Your task to perform on an android device: Search for "razer blackwidow" on target.com, select the first entry, and add it to the cart. Image 0: 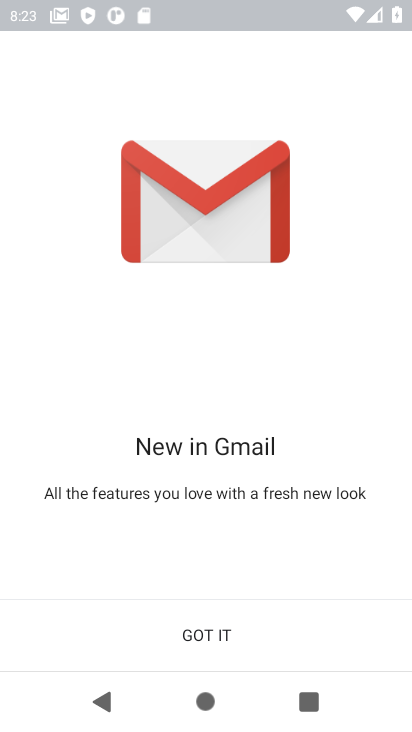
Step 0: press home button
Your task to perform on an android device: Search for "razer blackwidow" on target.com, select the first entry, and add it to the cart. Image 1: 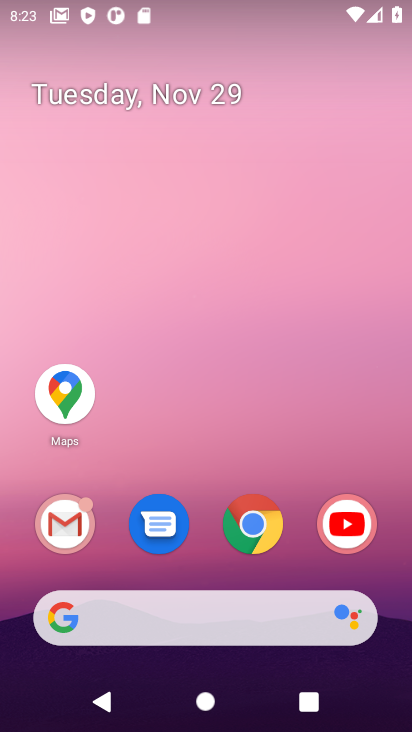
Step 1: click (249, 527)
Your task to perform on an android device: Search for "razer blackwidow" on target.com, select the first entry, and add it to the cart. Image 2: 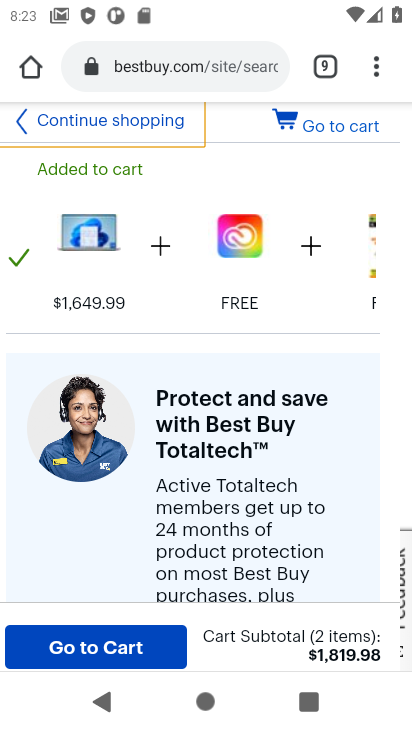
Step 2: click (182, 64)
Your task to perform on an android device: Search for "razer blackwidow" on target.com, select the first entry, and add it to the cart. Image 3: 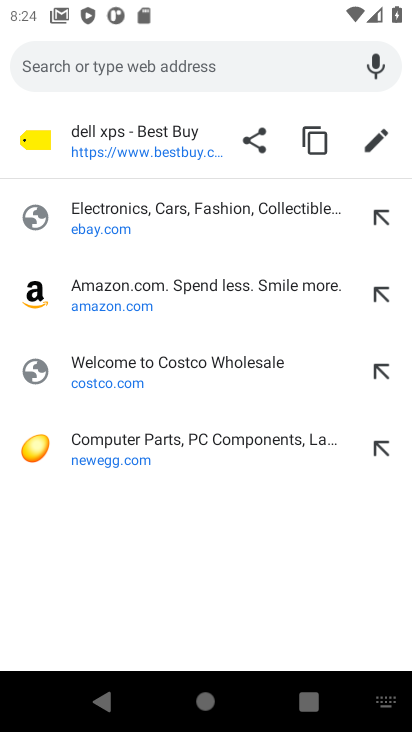
Step 3: type "target.com"
Your task to perform on an android device: Search for "razer blackwidow" on target.com, select the first entry, and add it to the cart. Image 4: 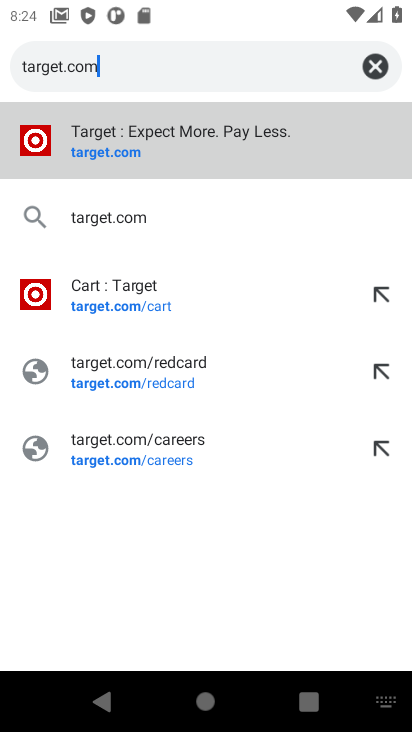
Step 4: click (127, 148)
Your task to perform on an android device: Search for "razer blackwidow" on target.com, select the first entry, and add it to the cart. Image 5: 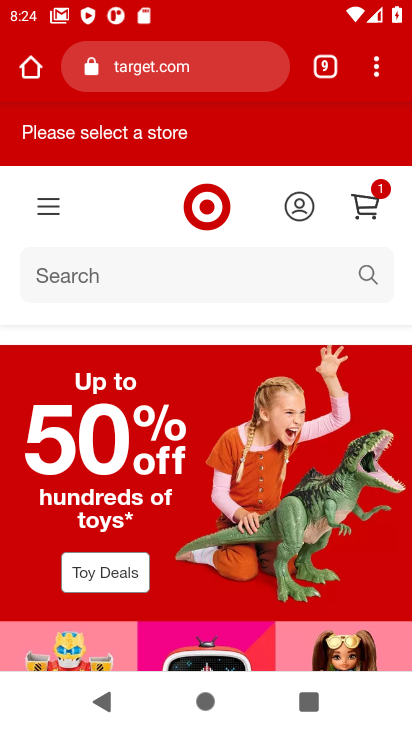
Step 5: click (51, 270)
Your task to perform on an android device: Search for "razer blackwidow" on target.com, select the first entry, and add it to the cart. Image 6: 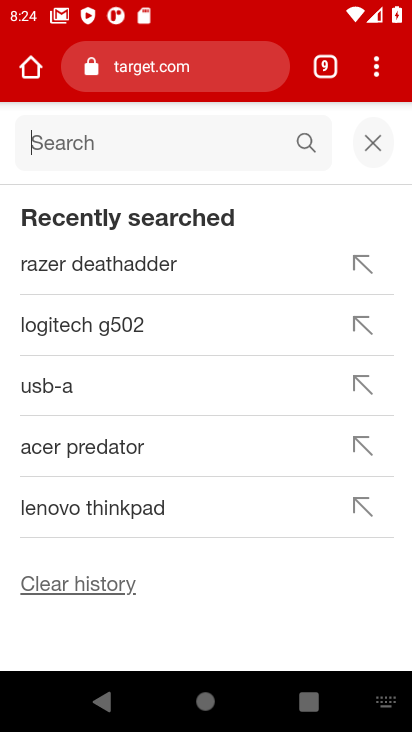
Step 6: type "razer blackwidow"
Your task to perform on an android device: Search for "razer blackwidow" on target.com, select the first entry, and add it to the cart. Image 7: 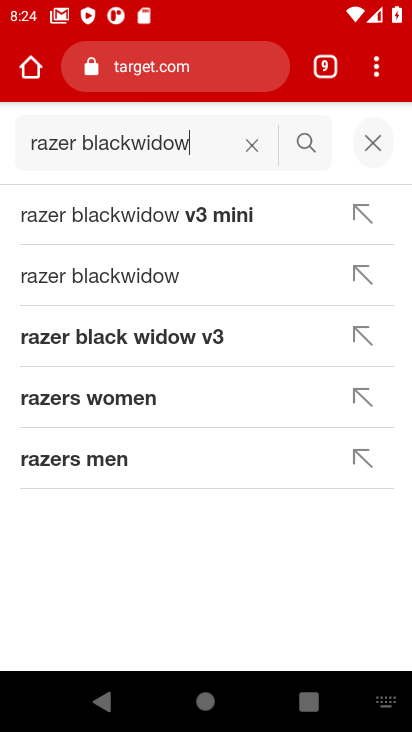
Step 7: click (101, 284)
Your task to perform on an android device: Search for "razer blackwidow" on target.com, select the first entry, and add it to the cart. Image 8: 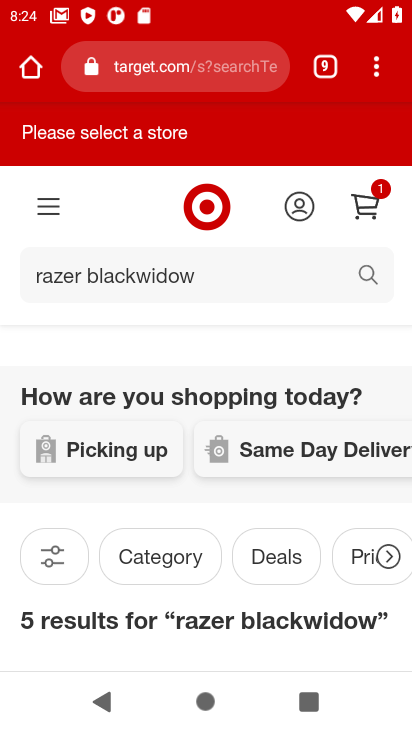
Step 8: drag from (153, 383) to (123, 122)
Your task to perform on an android device: Search for "razer blackwidow" on target.com, select the first entry, and add it to the cart. Image 9: 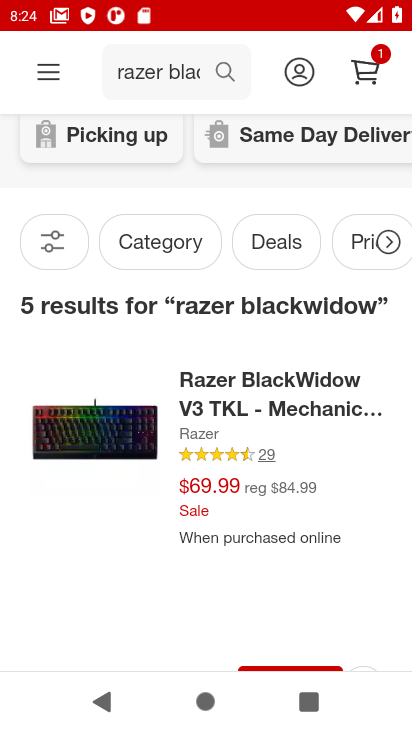
Step 9: drag from (151, 349) to (137, 218)
Your task to perform on an android device: Search for "razer blackwidow" on target.com, select the first entry, and add it to the cart. Image 10: 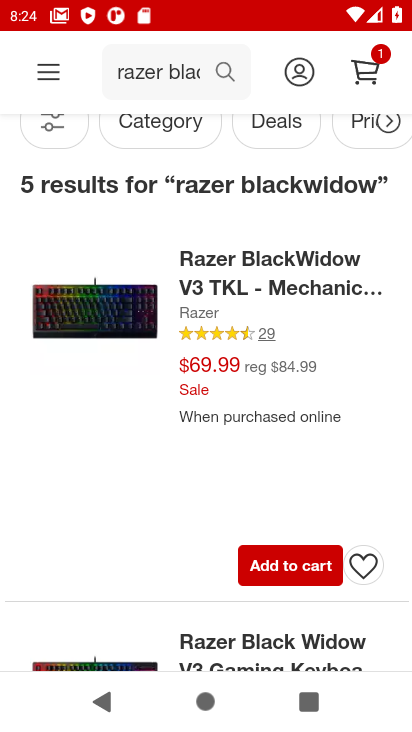
Step 10: click (282, 568)
Your task to perform on an android device: Search for "razer blackwidow" on target.com, select the first entry, and add it to the cart. Image 11: 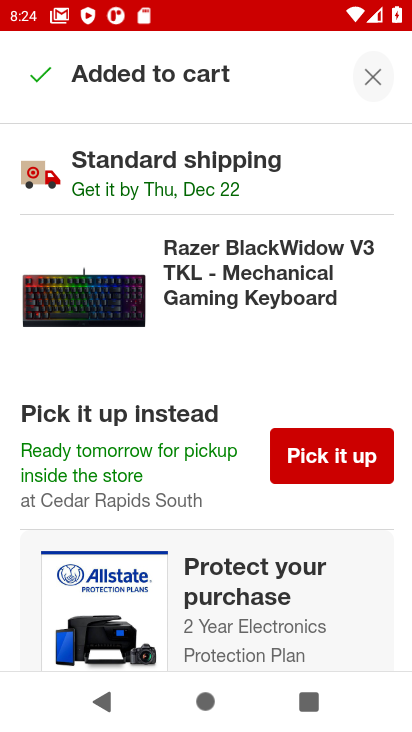
Step 11: task complete